Your task to perform on an android device: Show me the alarms in the clock app Image 0: 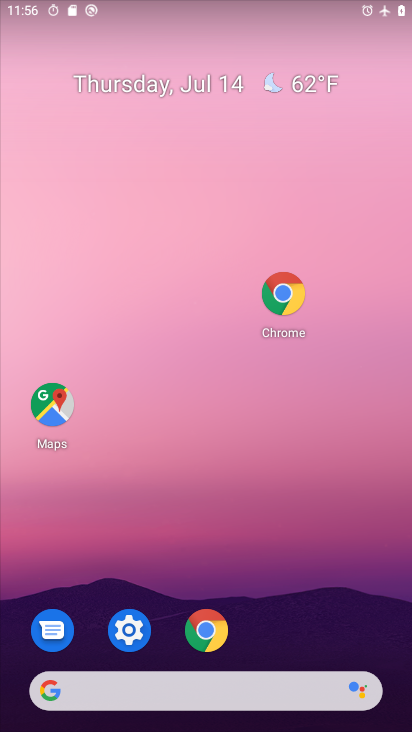
Step 0: drag from (216, 656) to (242, 181)
Your task to perform on an android device: Show me the alarms in the clock app Image 1: 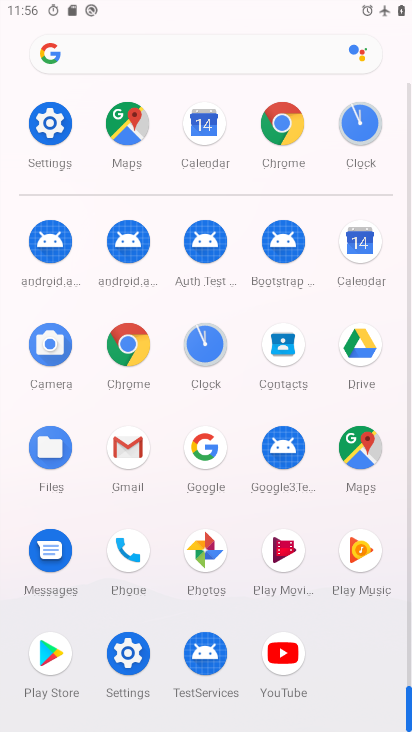
Step 1: click (204, 352)
Your task to perform on an android device: Show me the alarms in the clock app Image 2: 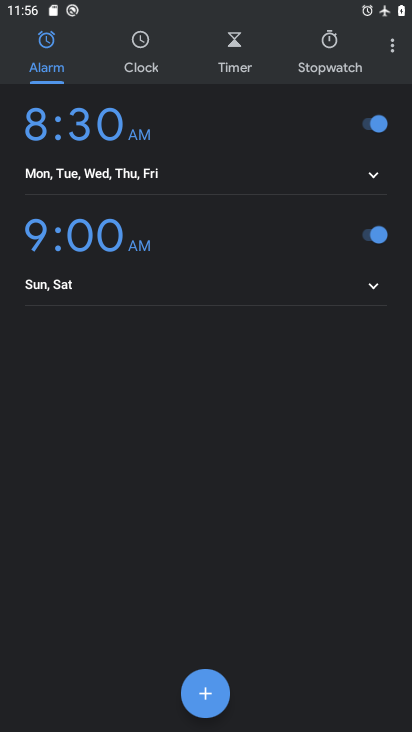
Step 2: task complete